Your task to perform on an android device: turn off improve location accuracy Image 0: 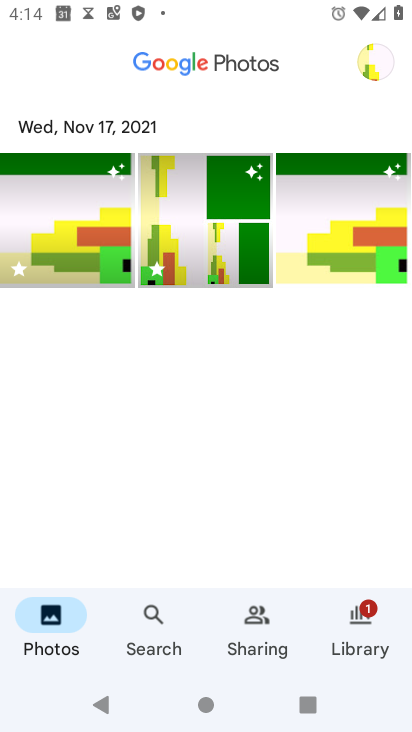
Step 0: press home button
Your task to perform on an android device: turn off improve location accuracy Image 1: 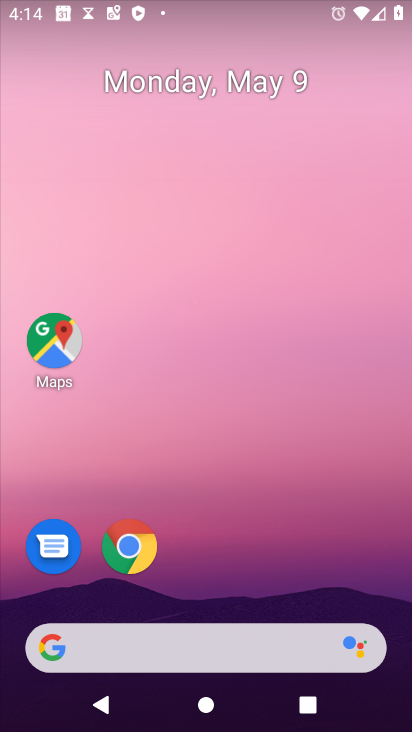
Step 1: drag from (272, 538) to (185, 10)
Your task to perform on an android device: turn off improve location accuracy Image 2: 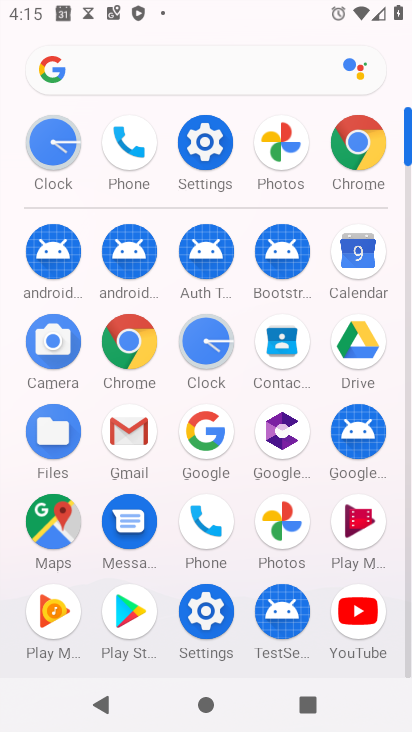
Step 2: click (202, 132)
Your task to perform on an android device: turn off improve location accuracy Image 3: 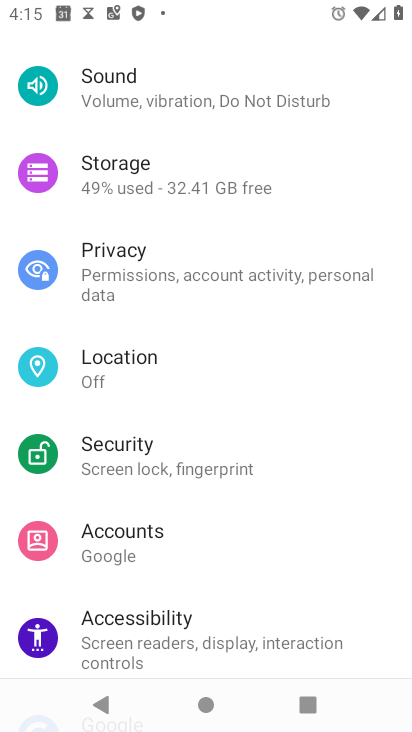
Step 3: drag from (237, 601) to (211, 265)
Your task to perform on an android device: turn off improve location accuracy Image 4: 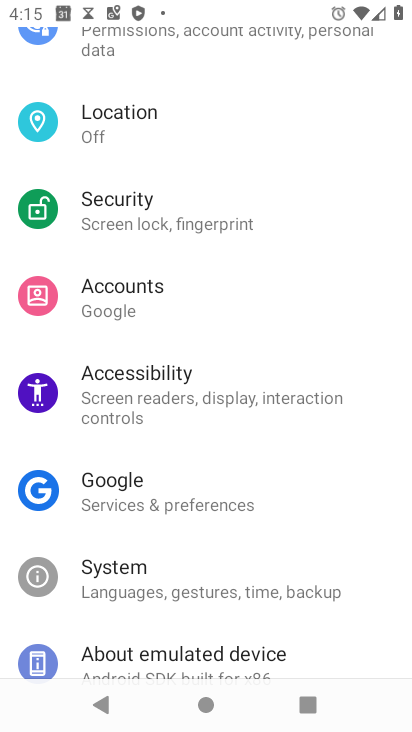
Step 4: click (120, 130)
Your task to perform on an android device: turn off improve location accuracy Image 5: 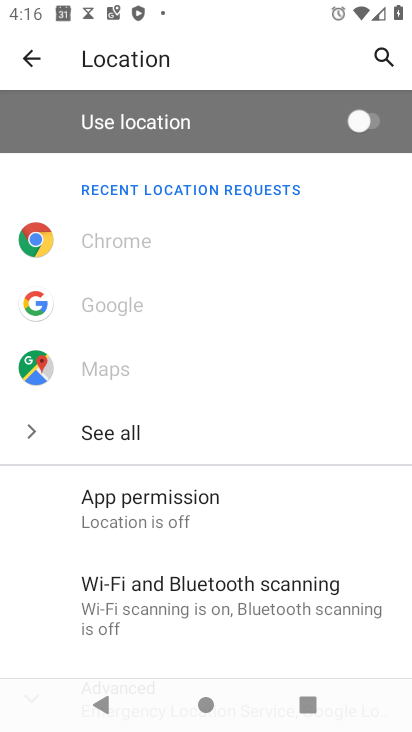
Step 5: drag from (176, 521) to (169, 219)
Your task to perform on an android device: turn off improve location accuracy Image 6: 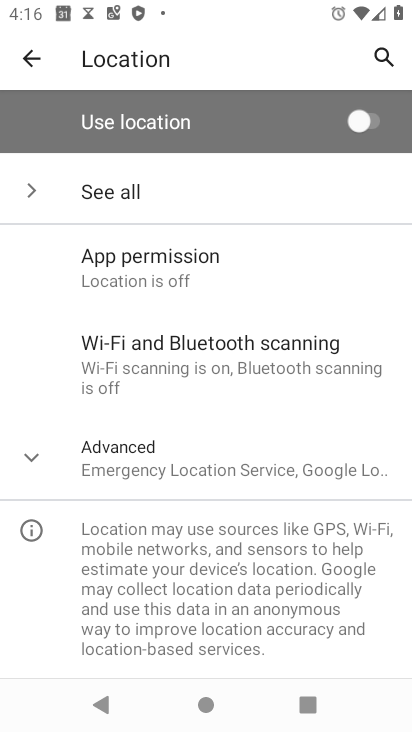
Step 6: click (155, 463)
Your task to perform on an android device: turn off improve location accuracy Image 7: 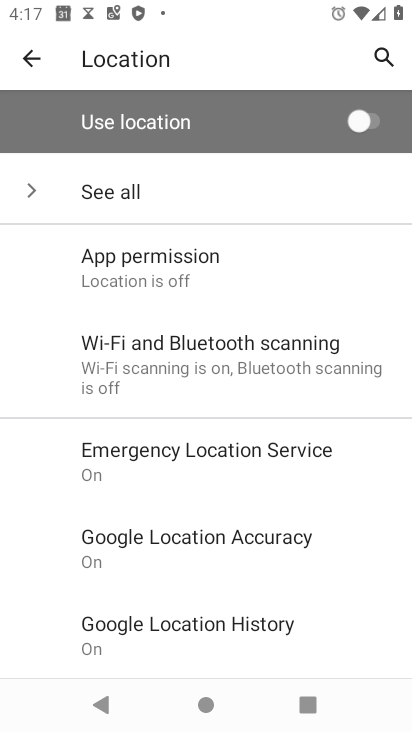
Step 7: click (221, 555)
Your task to perform on an android device: turn off improve location accuracy Image 8: 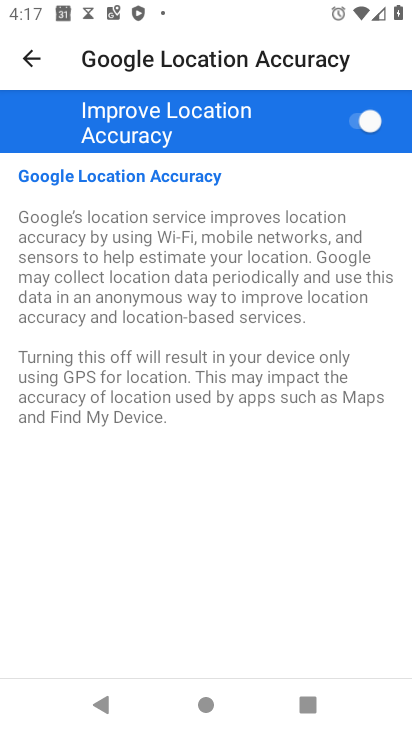
Step 8: click (358, 137)
Your task to perform on an android device: turn off improve location accuracy Image 9: 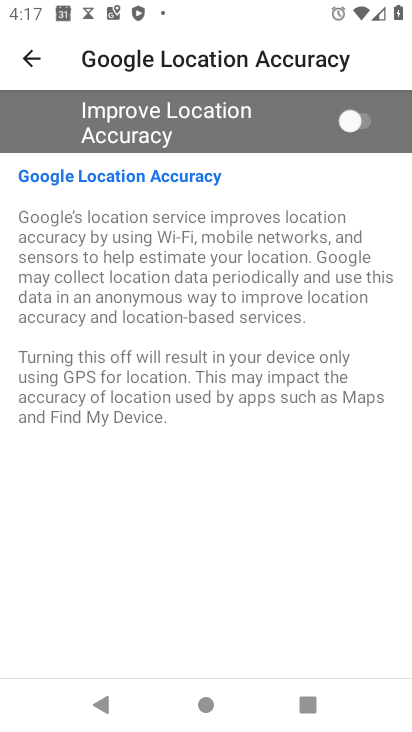
Step 9: task complete